Your task to perform on an android device: Do I have any events today? Image 0: 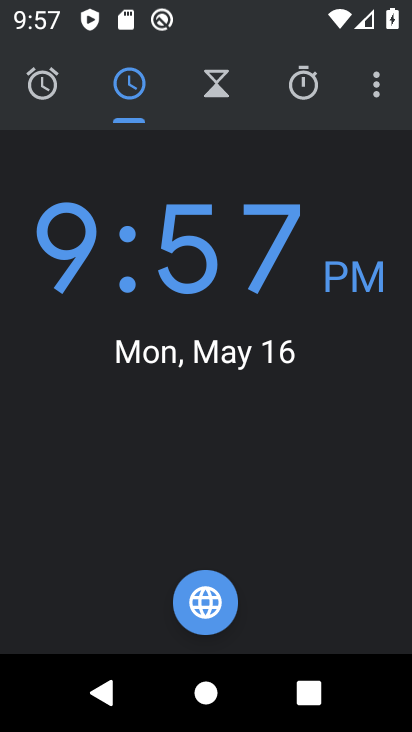
Step 0: press home button
Your task to perform on an android device: Do I have any events today? Image 1: 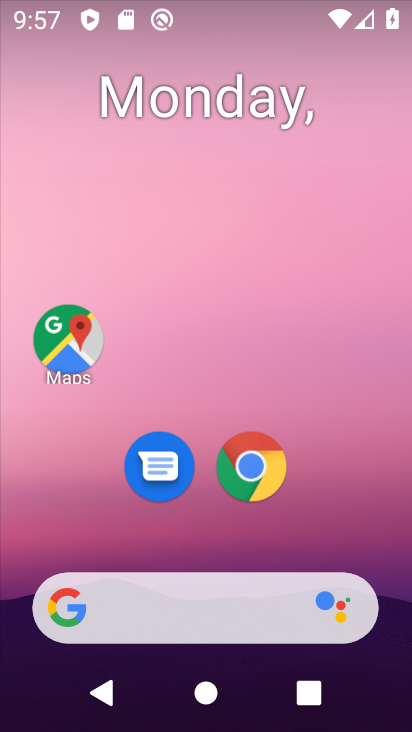
Step 1: drag from (202, 538) to (213, 166)
Your task to perform on an android device: Do I have any events today? Image 2: 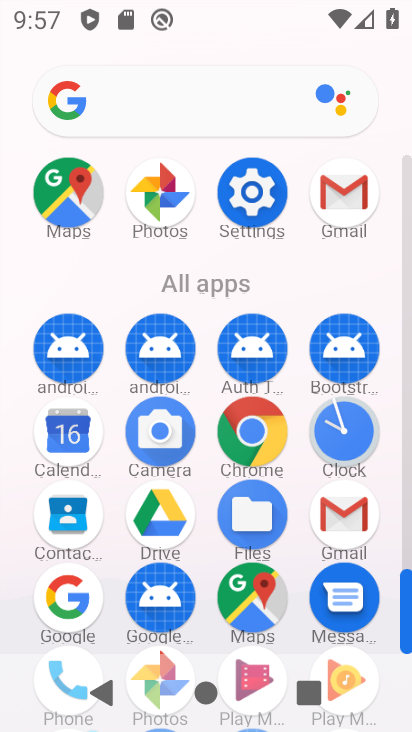
Step 2: click (65, 436)
Your task to perform on an android device: Do I have any events today? Image 3: 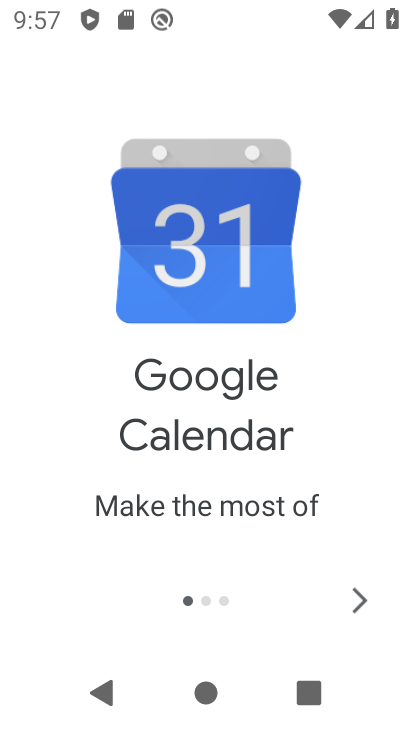
Step 3: click (356, 596)
Your task to perform on an android device: Do I have any events today? Image 4: 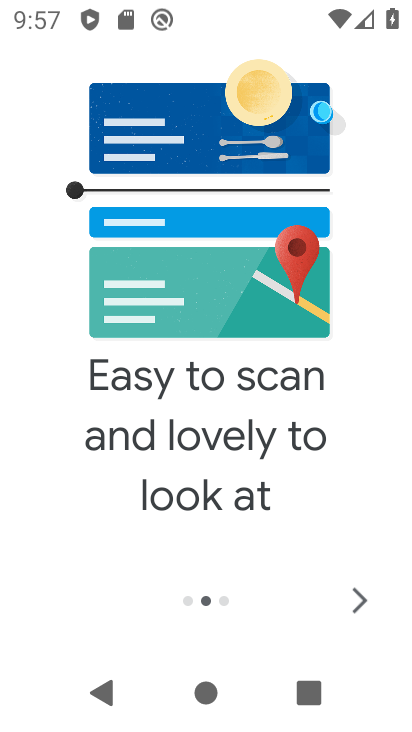
Step 4: click (356, 596)
Your task to perform on an android device: Do I have any events today? Image 5: 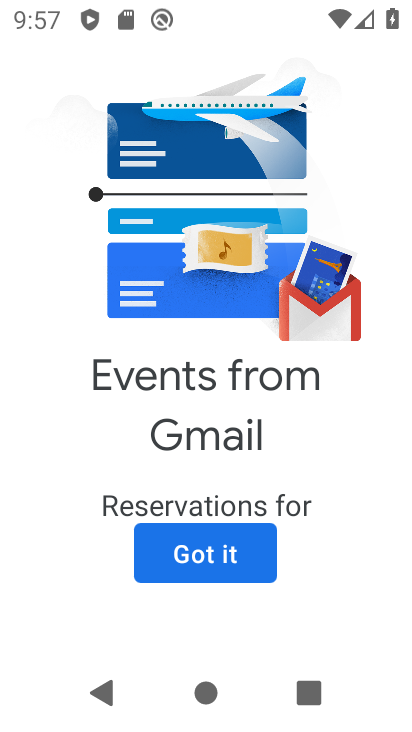
Step 5: click (236, 568)
Your task to perform on an android device: Do I have any events today? Image 6: 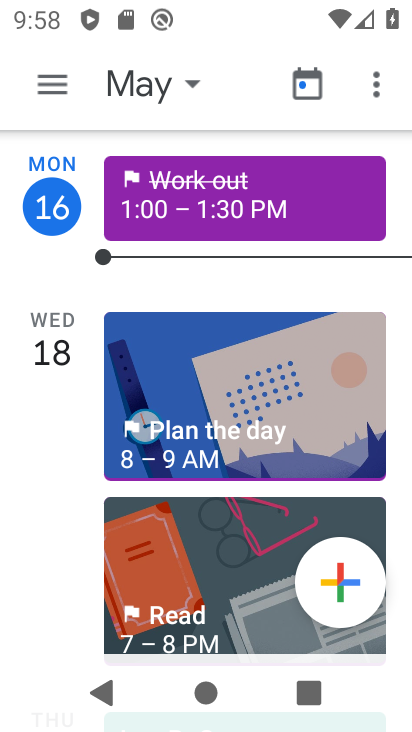
Step 6: click (191, 88)
Your task to perform on an android device: Do I have any events today? Image 7: 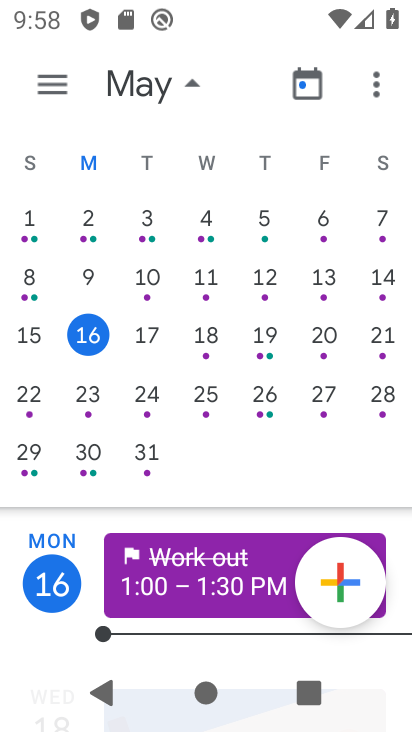
Step 7: click (143, 335)
Your task to perform on an android device: Do I have any events today? Image 8: 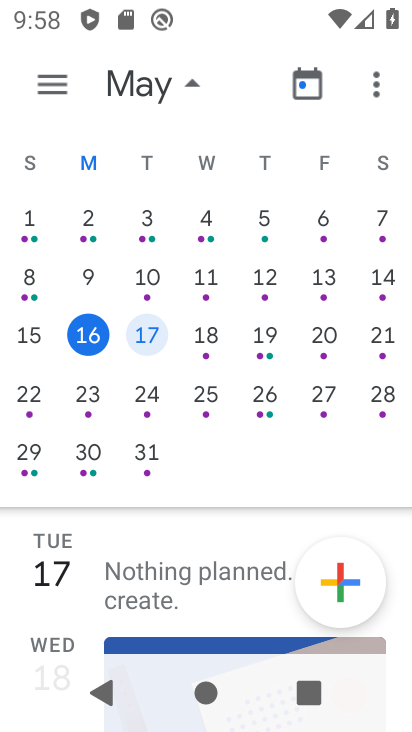
Step 8: task complete